Your task to perform on an android device: Go to Google Image 0: 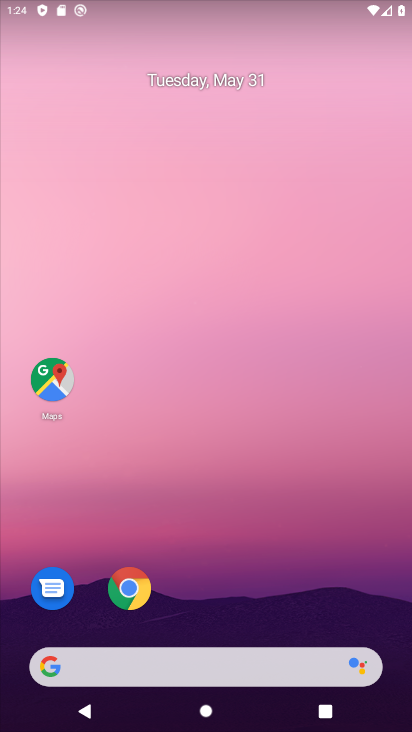
Step 0: drag from (361, 614) to (359, 246)
Your task to perform on an android device: Go to Google Image 1: 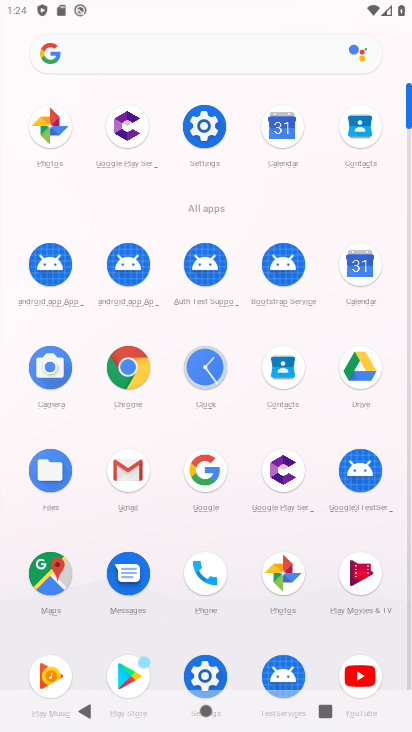
Step 1: click (203, 486)
Your task to perform on an android device: Go to Google Image 2: 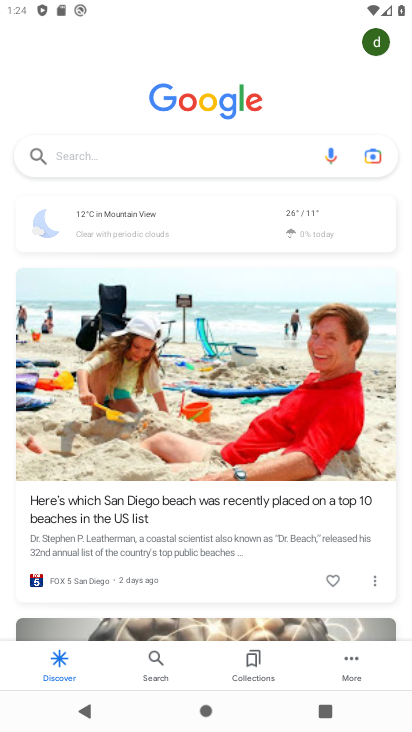
Step 2: task complete